Your task to perform on an android device: move a message to another label in the gmail app Image 0: 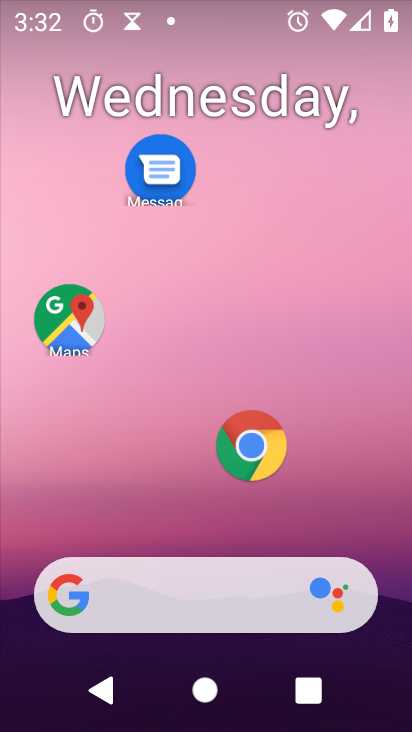
Step 0: press home button
Your task to perform on an android device: move a message to another label in the gmail app Image 1: 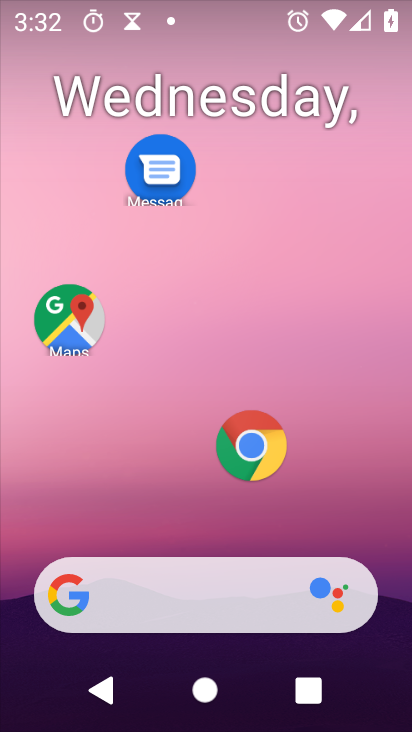
Step 1: drag from (33, 604) to (359, 218)
Your task to perform on an android device: move a message to another label in the gmail app Image 2: 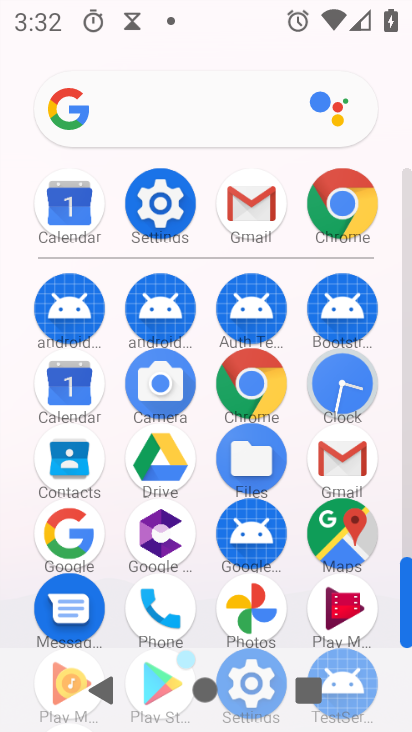
Step 2: click (333, 472)
Your task to perform on an android device: move a message to another label in the gmail app Image 3: 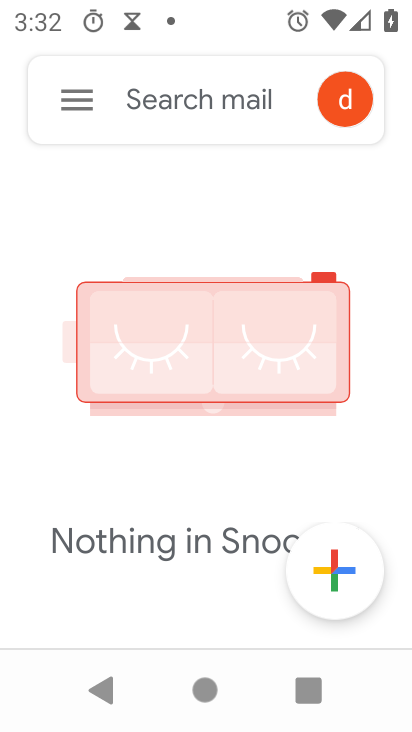
Step 3: click (79, 102)
Your task to perform on an android device: move a message to another label in the gmail app Image 4: 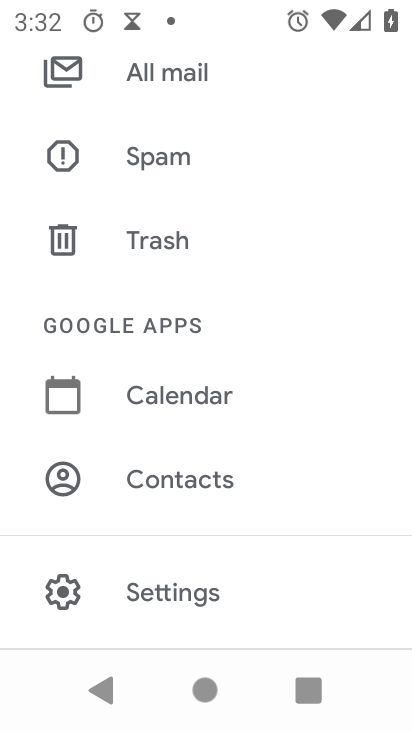
Step 4: task complete